Your task to perform on an android device: Search for Mexican restaurants on Maps Image 0: 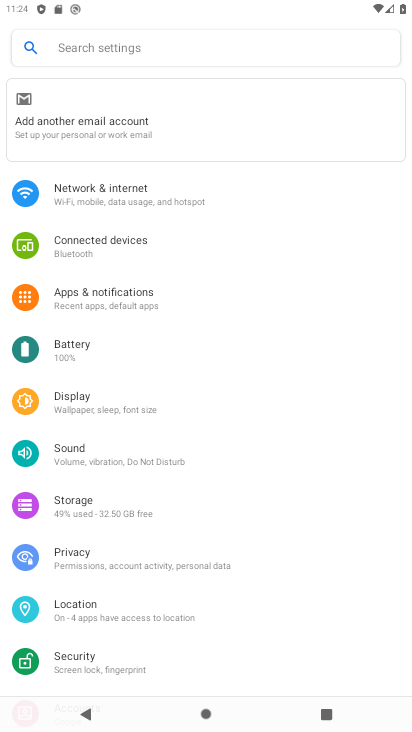
Step 0: press home button
Your task to perform on an android device: Search for Mexican restaurants on Maps Image 1: 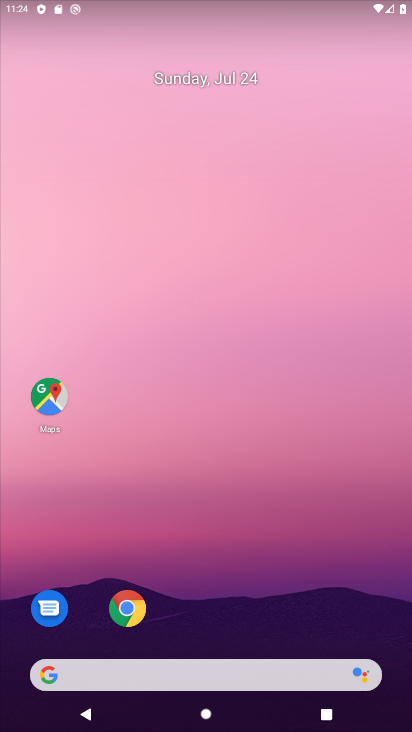
Step 1: click (42, 401)
Your task to perform on an android device: Search for Mexican restaurants on Maps Image 2: 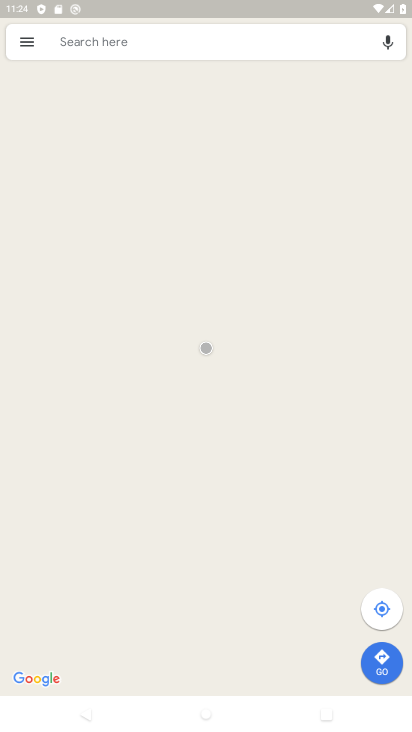
Step 2: click (186, 37)
Your task to perform on an android device: Search for Mexican restaurants on Maps Image 3: 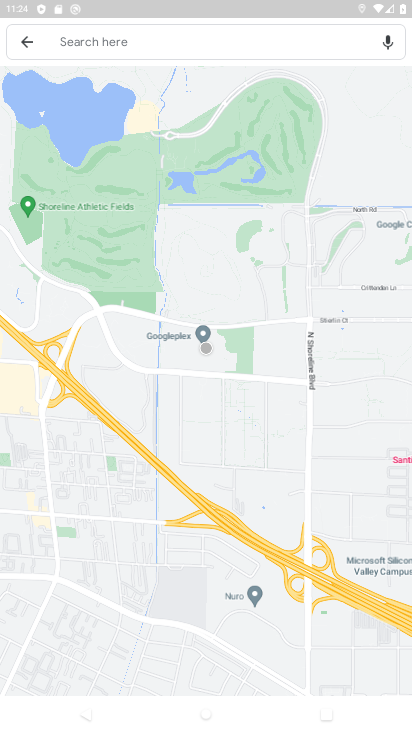
Step 3: click (120, 40)
Your task to perform on an android device: Search for Mexican restaurants on Maps Image 4: 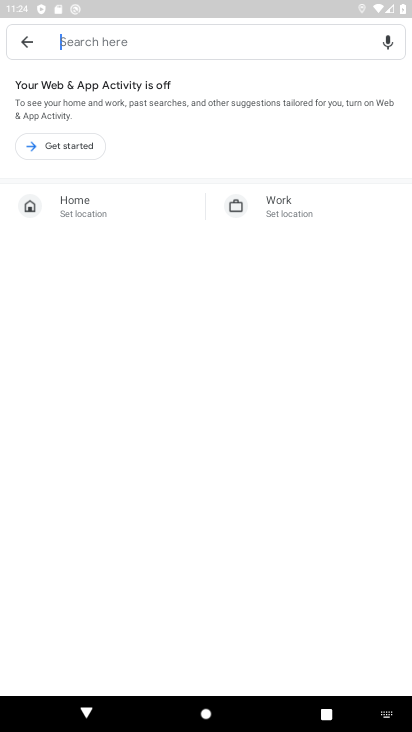
Step 4: type "Mexican restaurants"
Your task to perform on an android device: Search for Mexican restaurants on Maps Image 5: 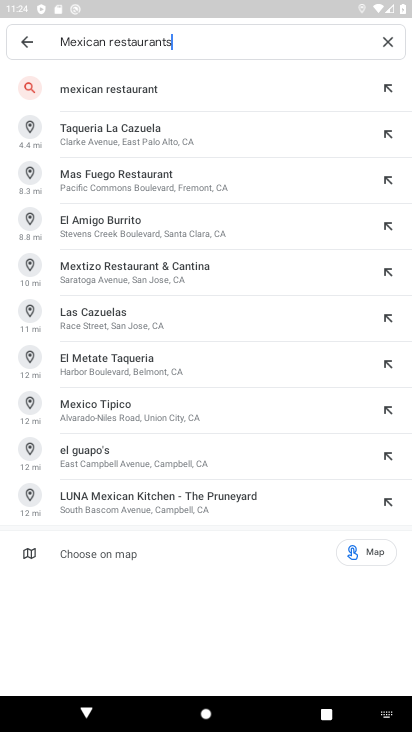
Step 5: click (92, 90)
Your task to perform on an android device: Search for Mexican restaurants on Maps Image 6: 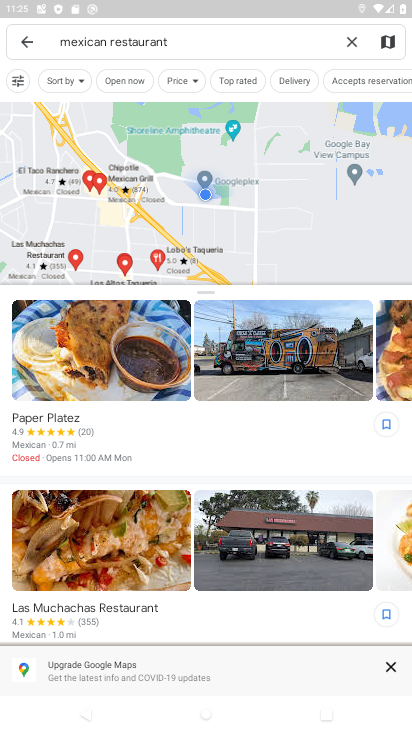
Step 6: task complete